Your task to perform on an android device: turn on priority inbox in the gmail app Image 0: 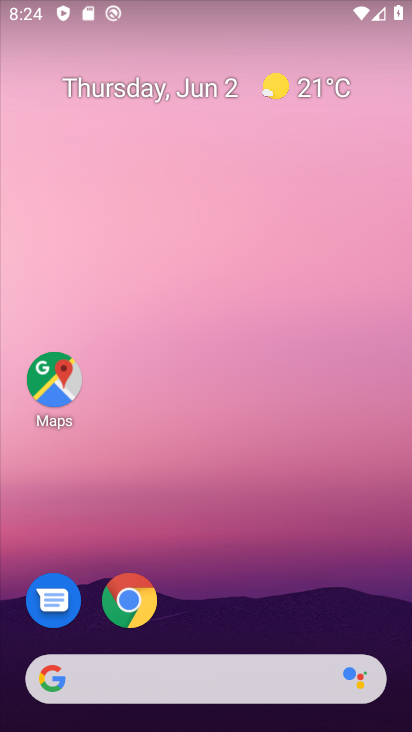
Step 0: drag from (203, 616) to (210, 151)
Your task to perform on an android device: turn on priority inbox in the gmail app Image 1: 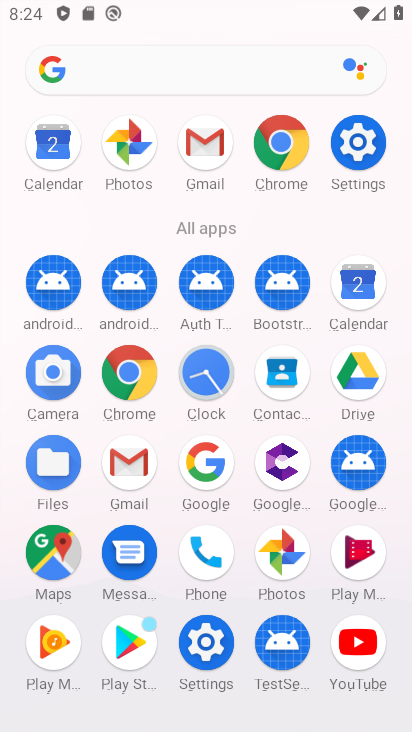
Step 1: click (211, 161)
Your task to perform on an android device: turn on priority inbox in the gmail app Image 2: 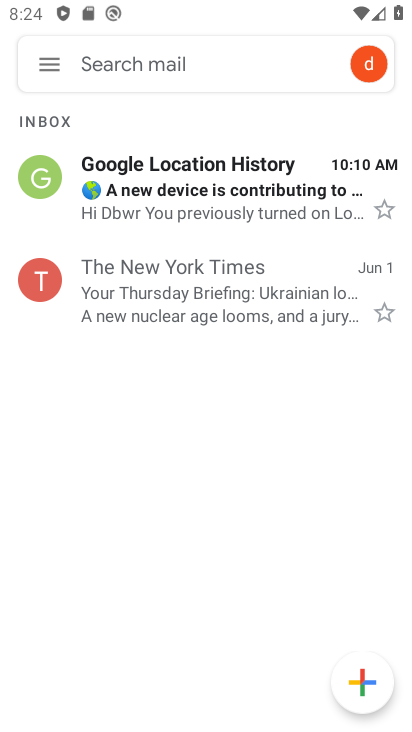
Step 2: click (53, 50)
Your task to perform on an android device: turn on priority inbox in the gmail app Image 3: 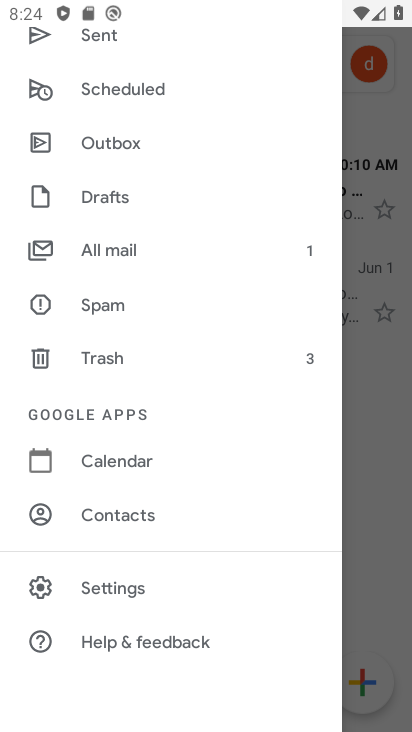
Step 3: click (102, 595)
Your task to perform on an android device: turn on priority inbox in the gmail app Image 4: 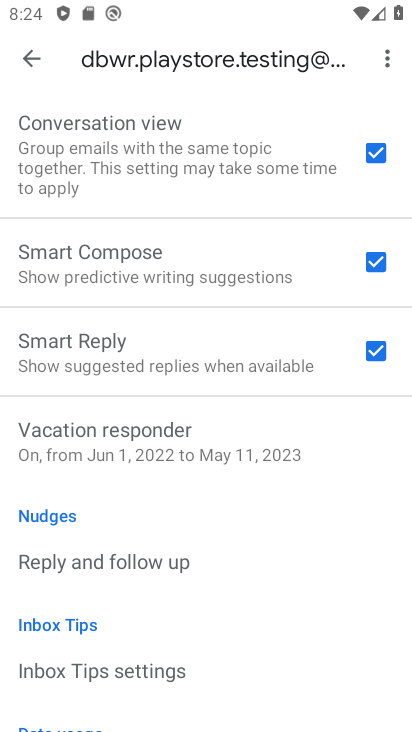
Step 4: drag from (203, 669) to (207, 288)
Your task to perform on an android device: turn on priority inbox in the gmail app Image 5: 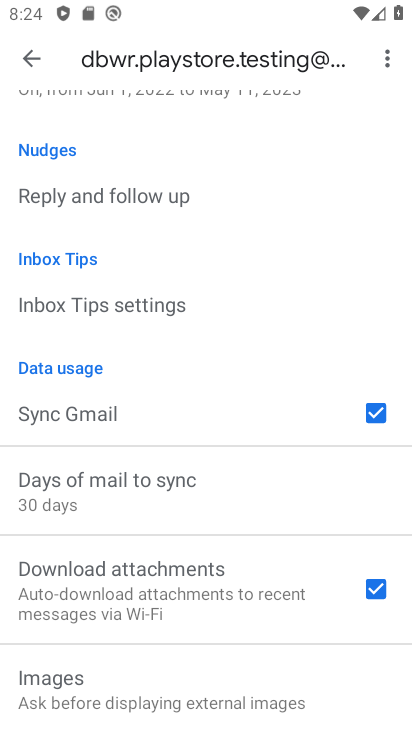
Step 5: drag from (222, 559) to (238, 242)
Your task to perform on an android device: turn on priority inbox in the gmail app Image 6: 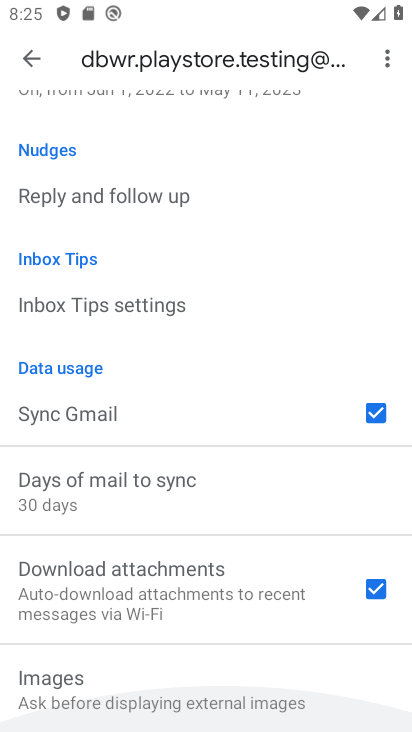
Step 6: drag from (238, 245) to (234, 490)
Your task to perform on an android device: turn on priority inbox in the gmail app Image 7: 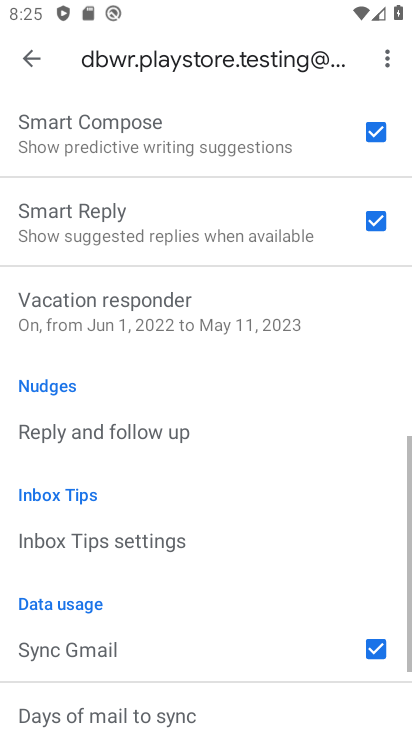
Step 7: drag from (193, 237) to (212, 431)
Your task to perform on an android device: turn on priority inbox in the gmail app Image 8: 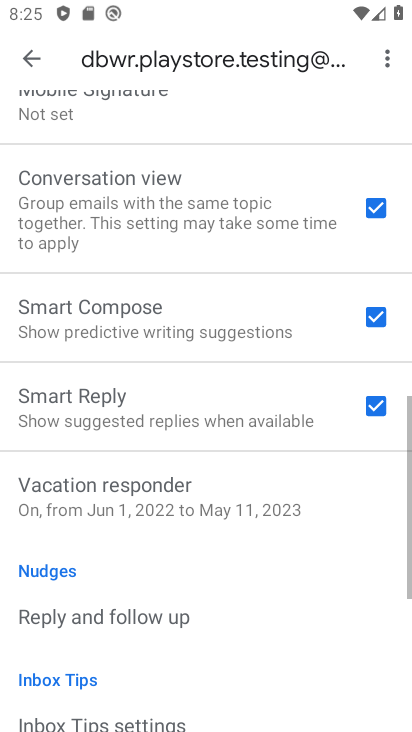
Step 8: drag from (206, 256) to (233, 482)
Your task to perform on an android device: turn on priority inbox in the gmail app Image 9: 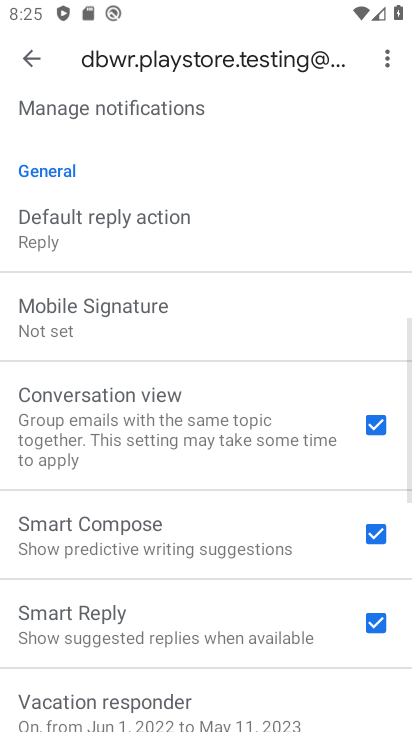
Step 9: drag from (196, 204) to (198, 472)
Your task to perform on an android device: turn on priority inbox in the gmail app Image 10: 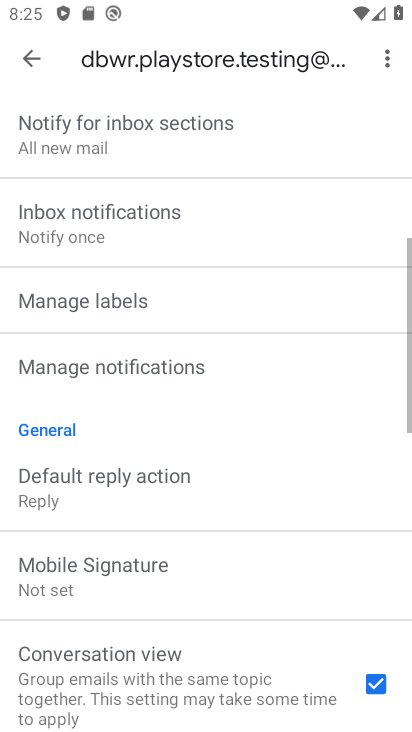
Step 10: drag from (202, 271) to (212, 465)
Your task to perform on an android device: turn on priority inbox in the gmail app Image 11: 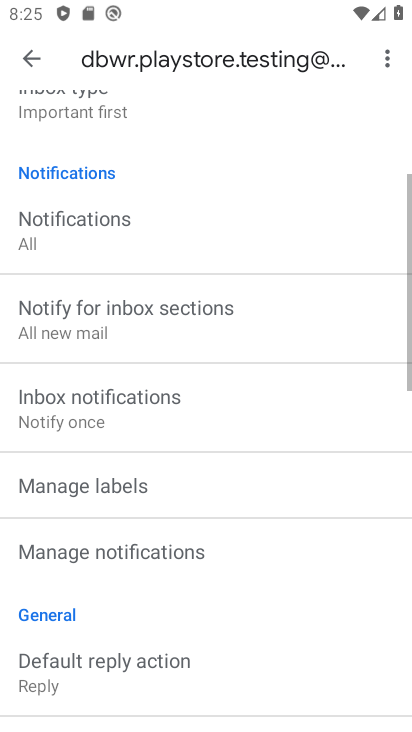
Step 11: drag from (214, 203) to (240, 416)
Your task to perform on an android device: turn on priority inbox in the gmail app Image 12: 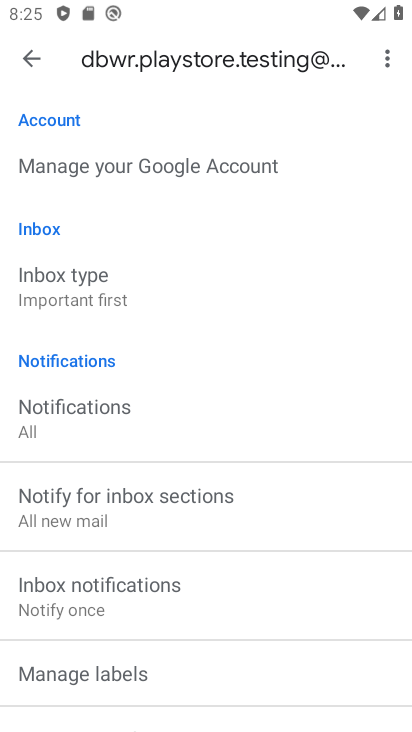
Step 12: click (141, 296)
Your task to perform on an android device: turn on priority inbox in the gmail app Image 13: 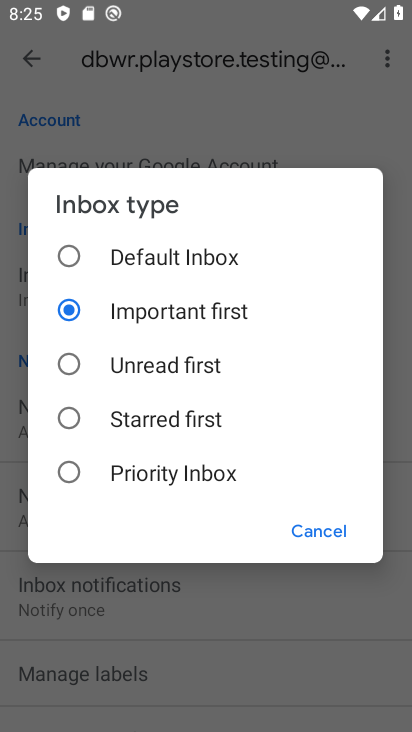
Step 13: click (154, 471)
Your task to perform on an android device: turn on priority inbox in the gmail app Image 14: 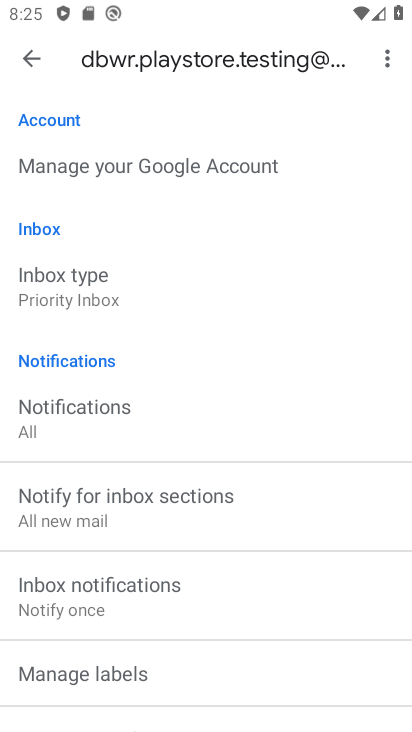
Step 14: task complete